Your task to perform on an android device: open a bookmark in the chrome app Image 0: 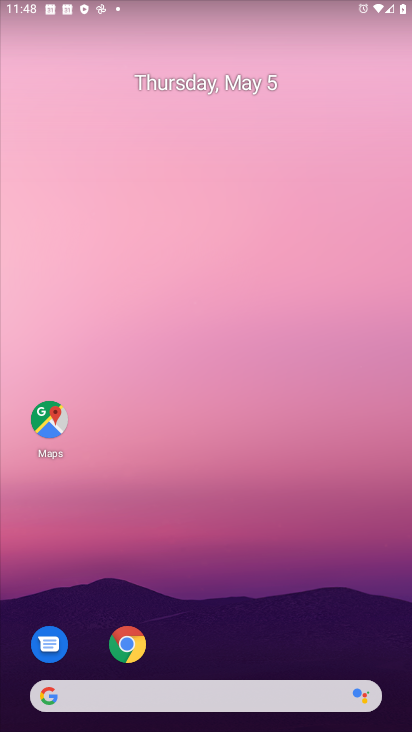
Step 0: drag from (191, 636) to (191, 44)
Your task to perform on an android device: open a bookmark in the chrome app Image 1: 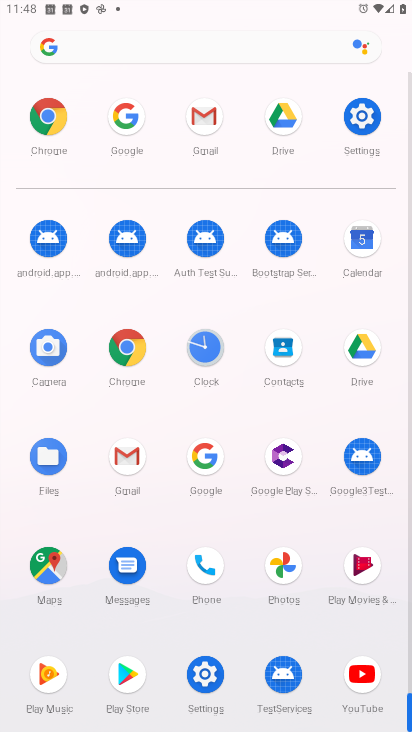
Step 1: click (47, 116)
Your task to perform on an android device: open a bookmark in the chrome app Image 2: 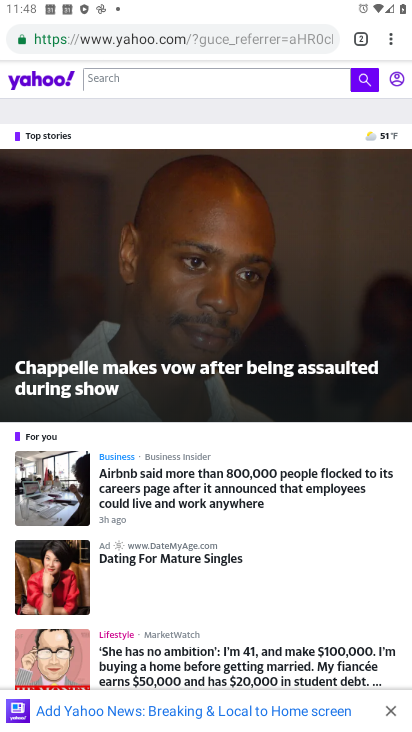
Step 2: click (393, 43)
Your task to perform on an android device: open a bookmark in the chrome app Image 3: 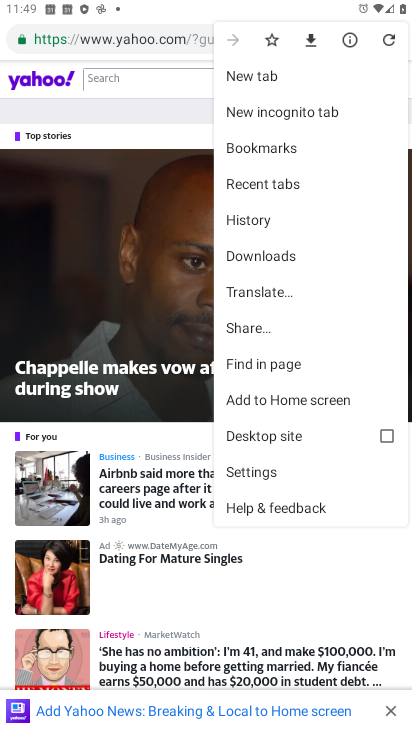
Step 3: click (288, 151)
Your task to perform on an android device: open a bookmark in the chrome app Image 4: 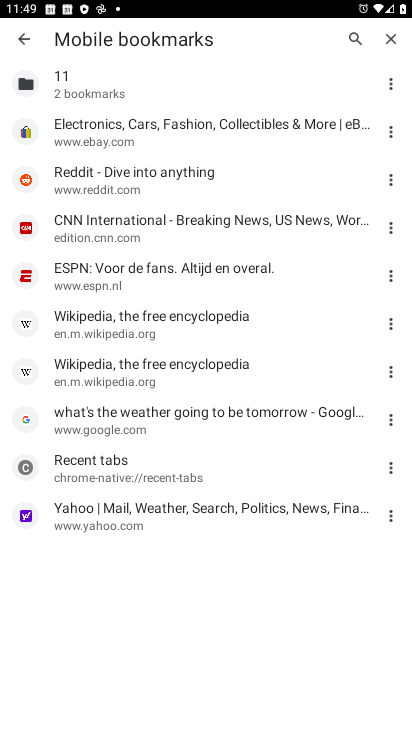
Step 4: click (356, 135)
Your task to perform on an android device: open a bookmark in the chrome app Image 5: 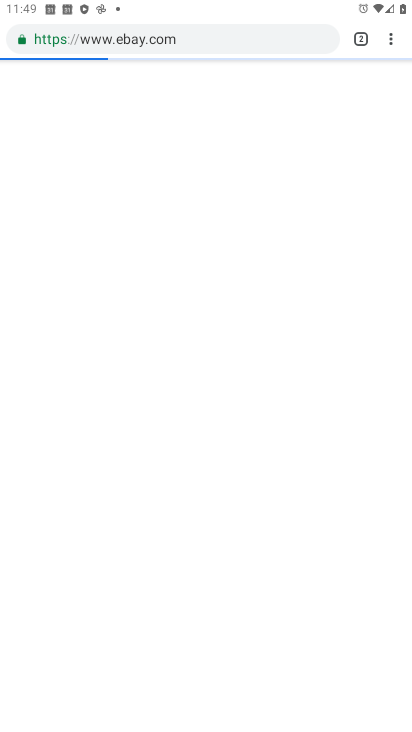
Step 5: task complete